Your task to perform on an android device: open app "Nova Launcher" (install if not already installed), go to login, and select forgot password Image 0: 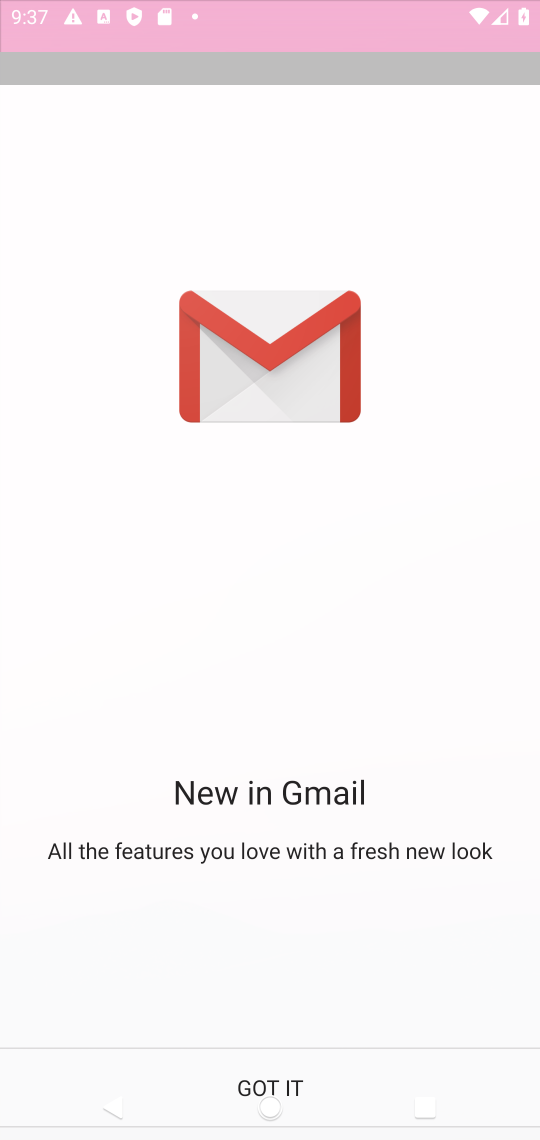
Step 0: click (415, 281)
Your task to perform on an android device: open app "Nova Launcher" (install if not already installed), go to login, and select forgot password Image 1: 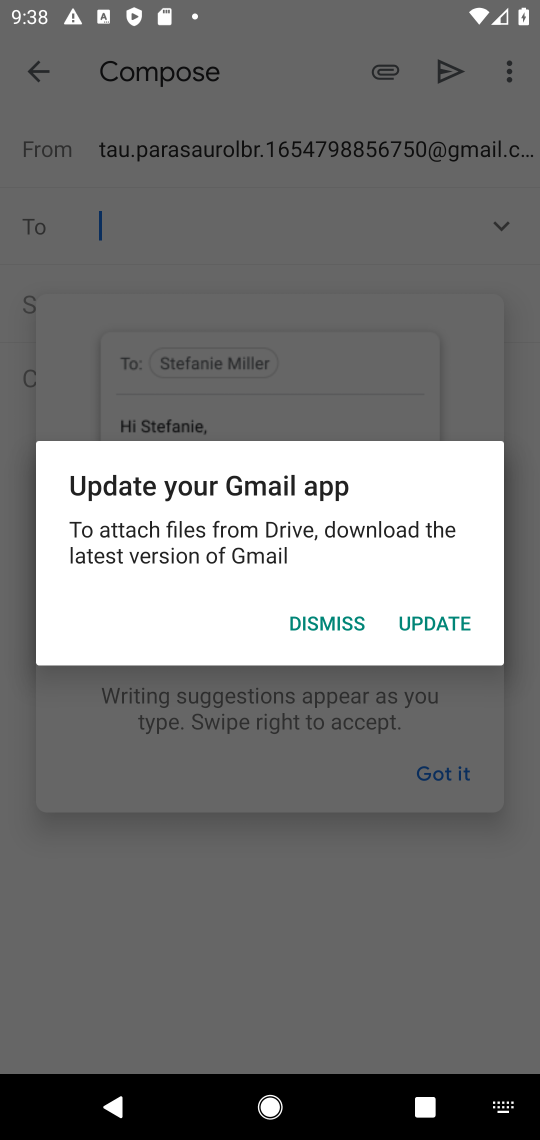
Step 1: press home button
Your task to perform on an android device: open app "Nova Launcher" (install if not already installed), go to login, and select forgot password Image 2: 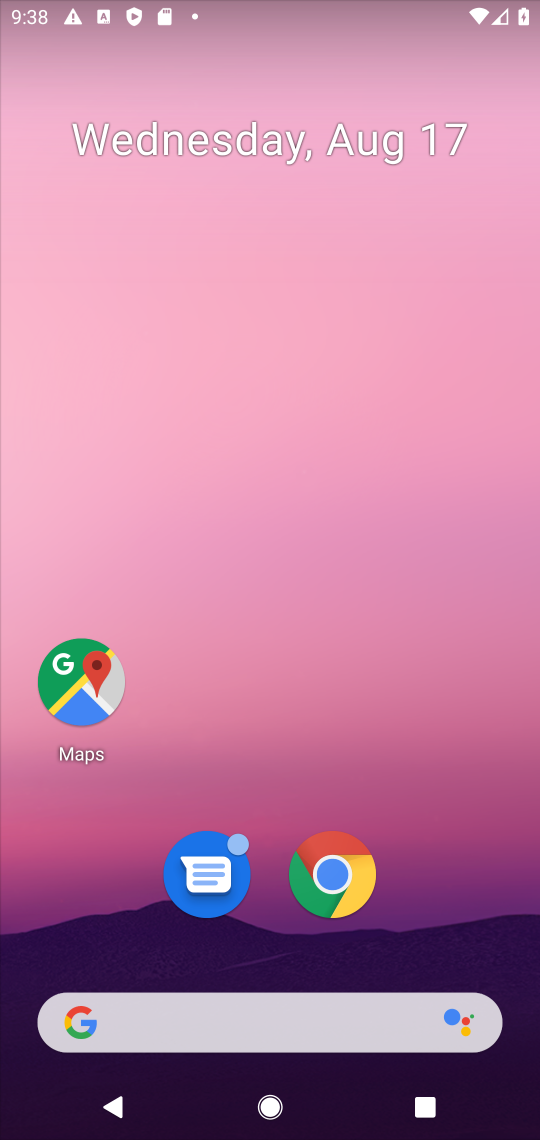
Step 2: drag from (411, 595) to (449, 243)
Your task to perform on an android device: open app "Nova Launcher" (install if not already installed), go to login, and select forgot password Image 3: 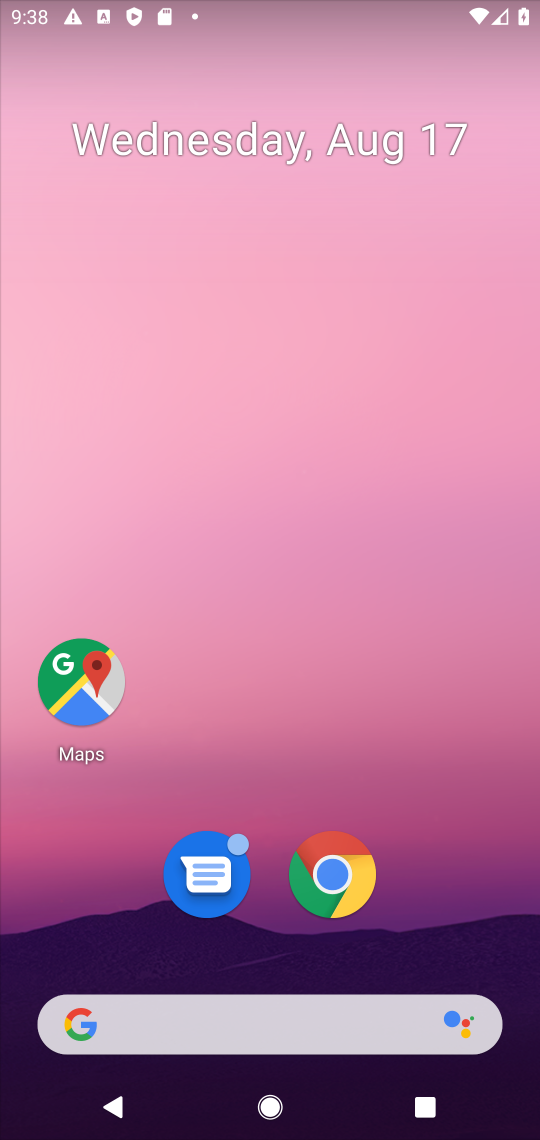
Step 3: drag from (338, 997) to (325, 86)
Your task to perform on an android device: open app "Nova Launcher" (install if not already installed), go to login, and select forgot password Image 4: 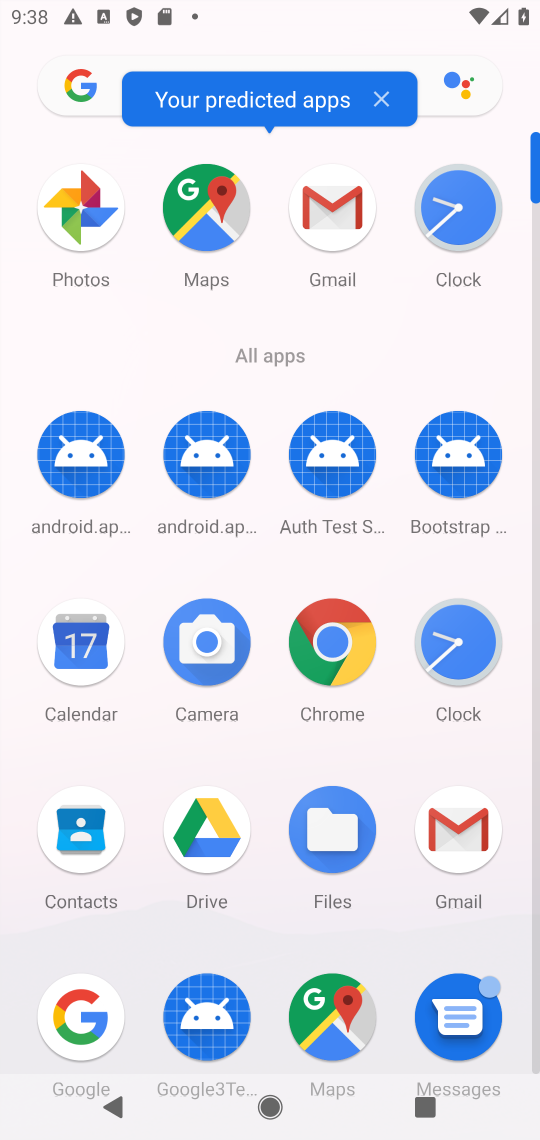
Step 4: drag from (337, 377) to (394, 117)
Your task to perform on an android device: open app "Nova Launcher" (install if not already installed), go to login, and select forgot password Image 5: 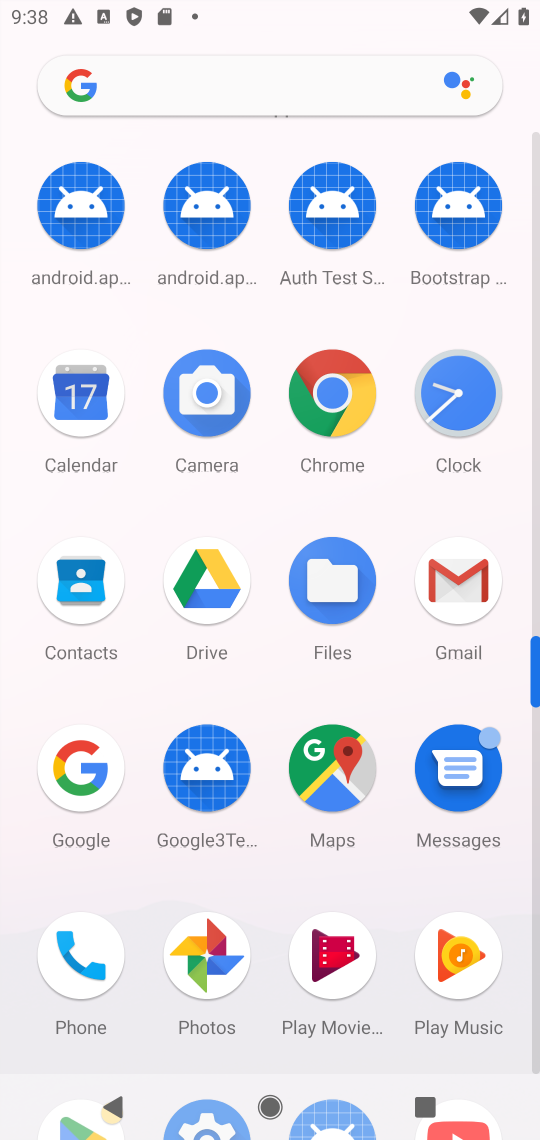
Step 5: drag from (300, 656) to (376, 40)
Your task to perform on an android device: open app "Nova Launcher" (install if not already installed), go to login, and select forgot password Image 6: 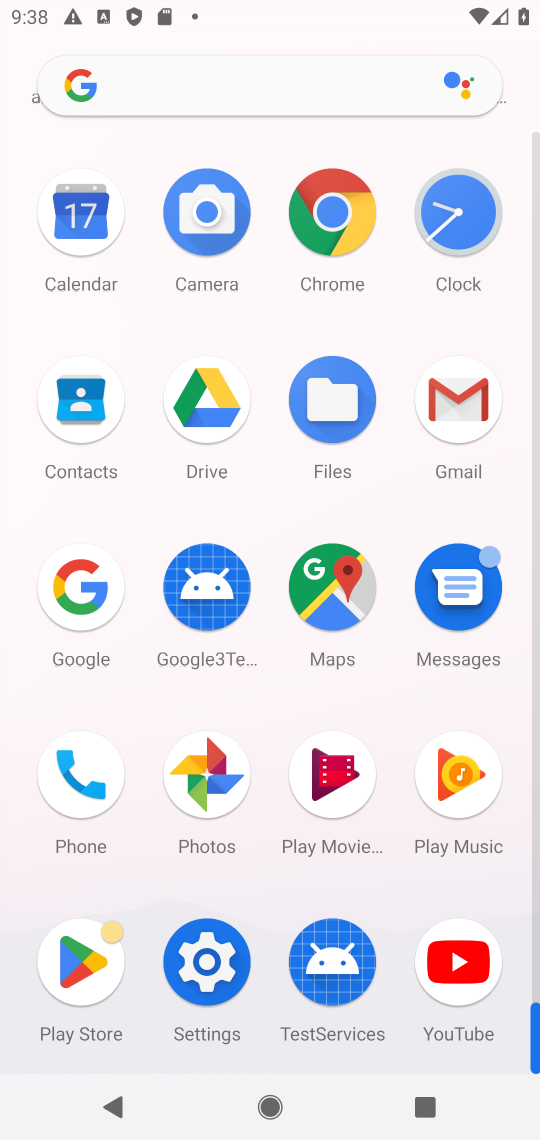
Step 6: click (94, 986)
Your task to perform on an android device: open app "Nova Launcher" (install if not already installed), go to login, and select forgot password Image 7: 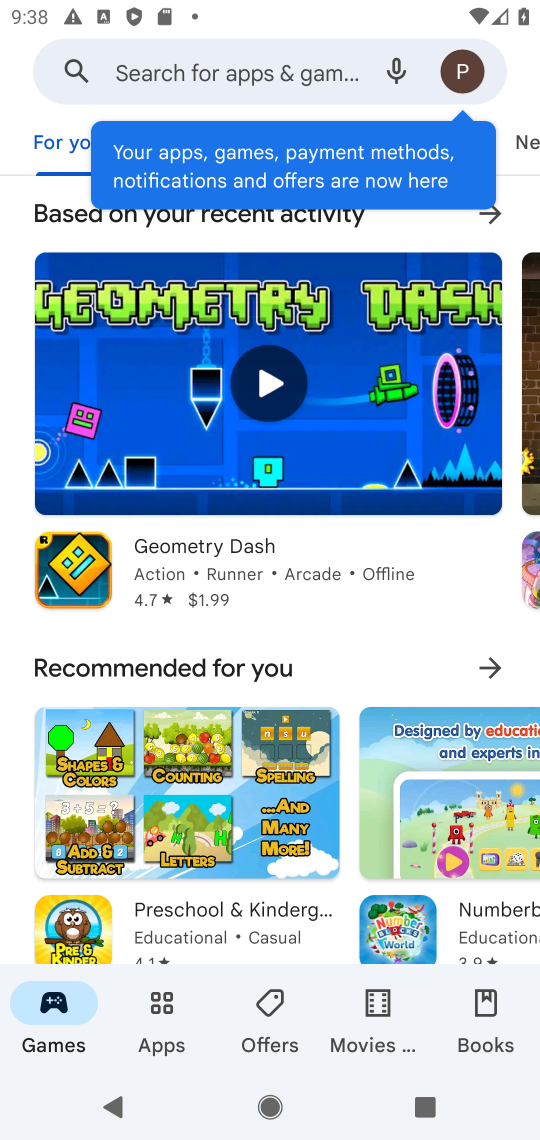
Step 7: click (172, 62)
Your task to perform on an android device: open app "Nova Launcher" (install if not already installed), go to login, and select forgot password Image 8: 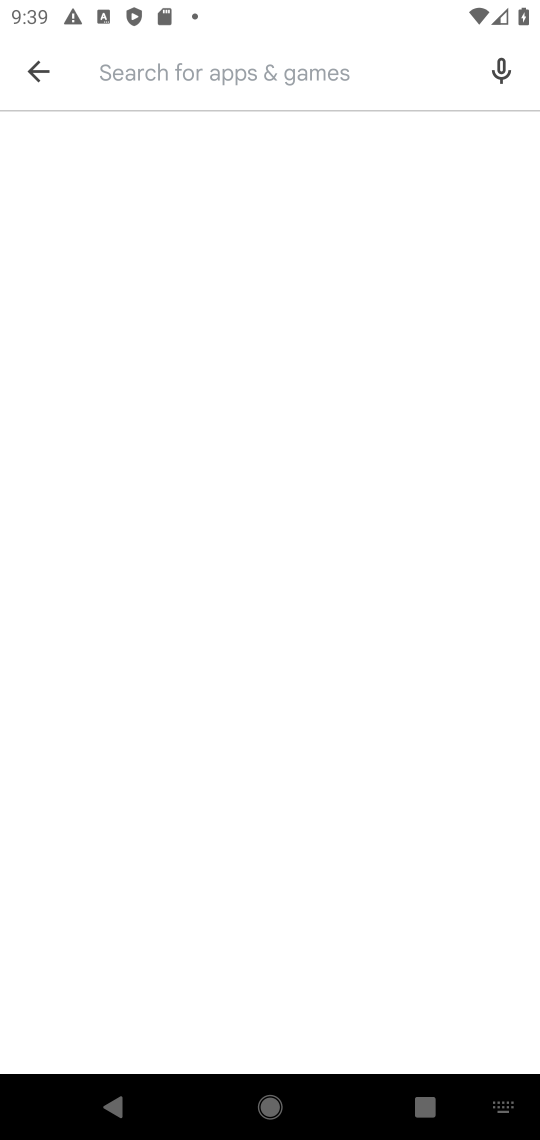
Step 8: type "Nova Launcher"
Your task to perform on an android device: open app "Nova Launcher" (install if not already installed), go to login, and select forgot password Image 9: 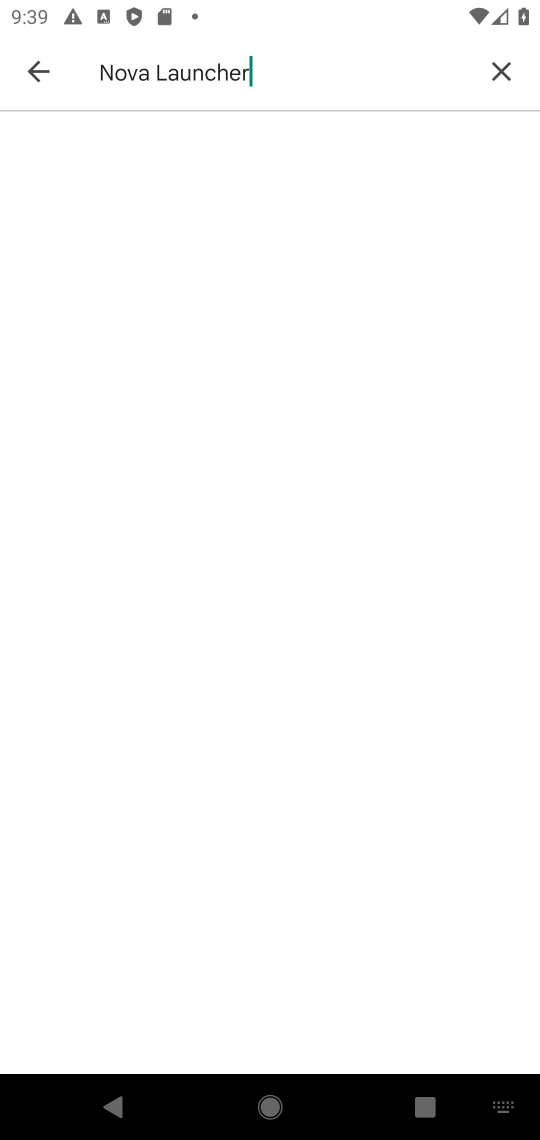
Step 9: type ""
Your task to perform on an android device: open app "Nova Launcher" (install if not already installed), go to login, and select forgot password Image 10: 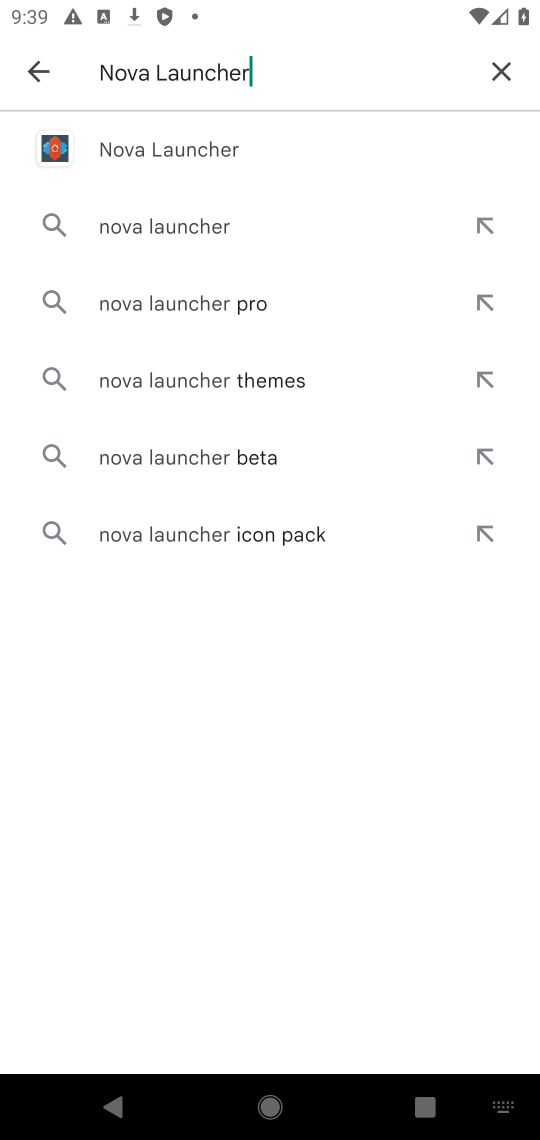
Step 10: click (305, 154)
Your task to perform on an android device: open app "Nova Launcher" (install if not already installed), go to login, and select forgot password Image 11: 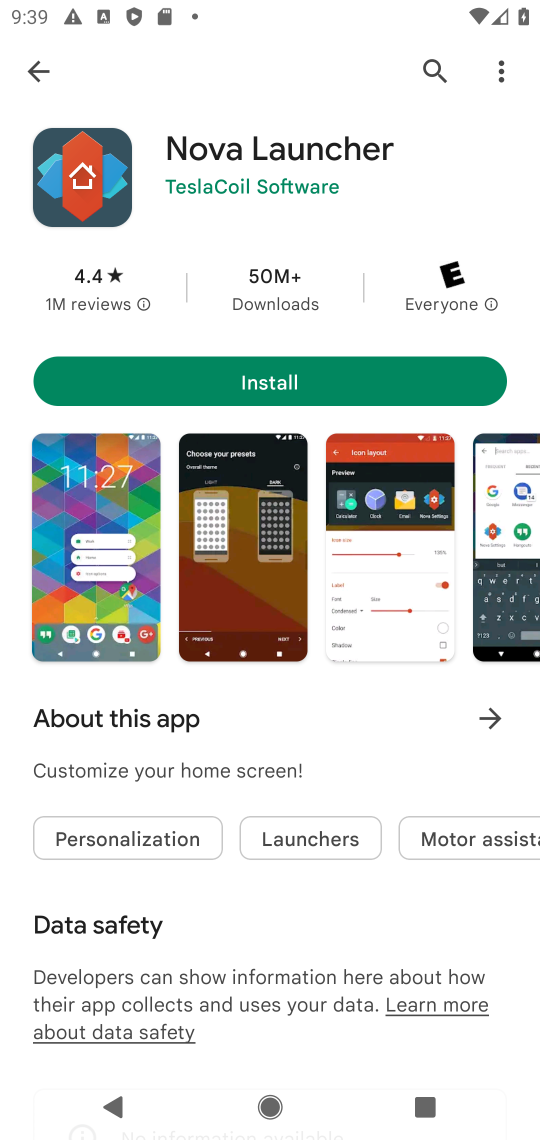
Step 11: click (333, 397)
Your task to perform on an android device: open app "Nova Launcher" (install if not already installed), go to login, and select forgot password Image 12: 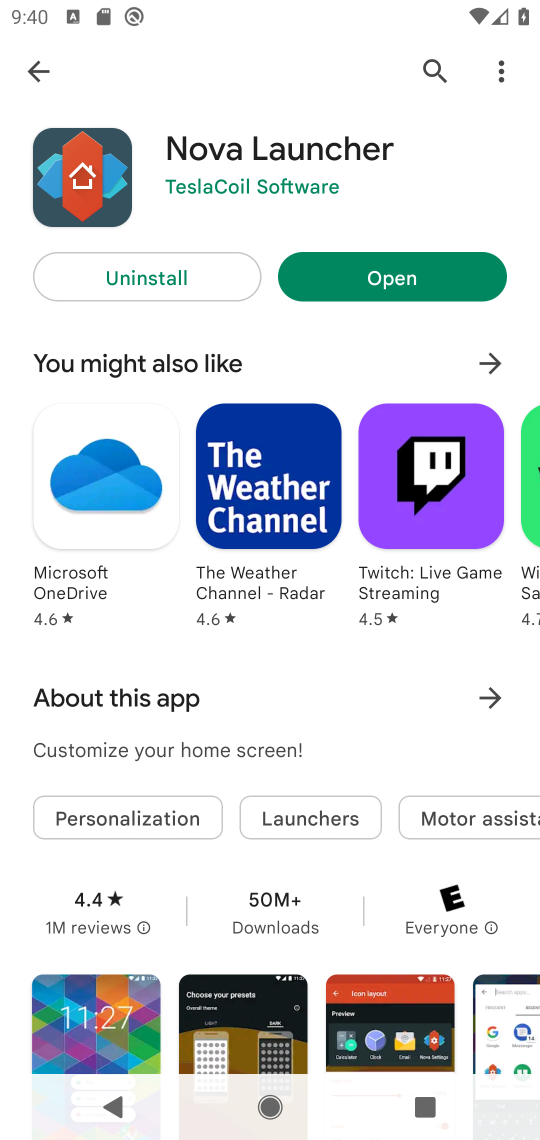
Step 12: click (412, 277)
Your task to perform on an android device: open app "Nova Launcher" (install if not already installed), go to login, and select forgot password Image 13: 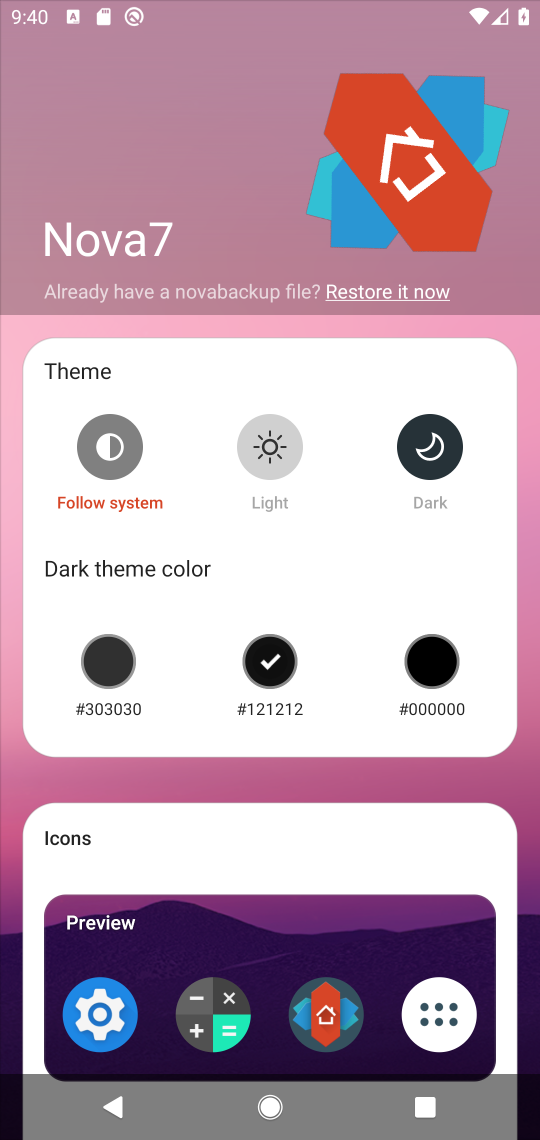
Step 13: task complete